Your task to perform on an android device: Go to privacy settings Image 0: 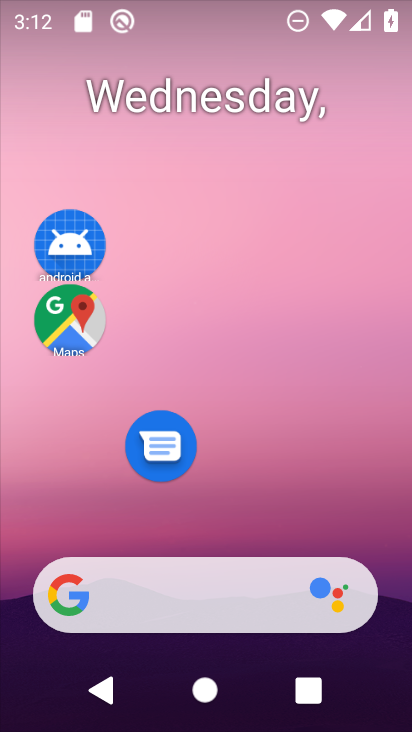
Step 0: drag from (239, 535) to (288, 165)
Your task to perform on an android device: Go to privacy settings Image 1: 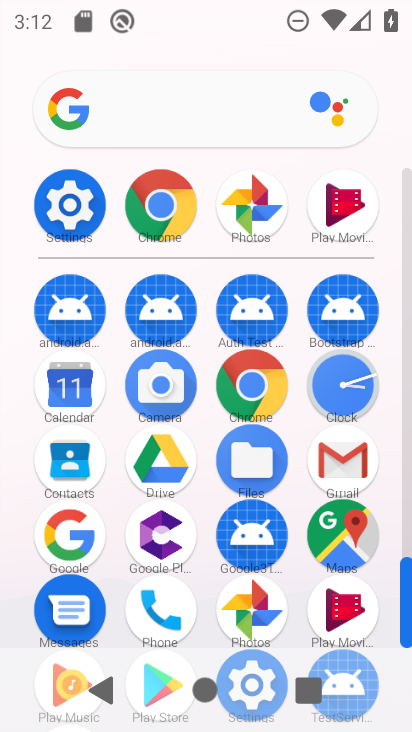
Step 1: click (84, 213)
Your task to perform on an android device: Go to privacy settings Image 2: 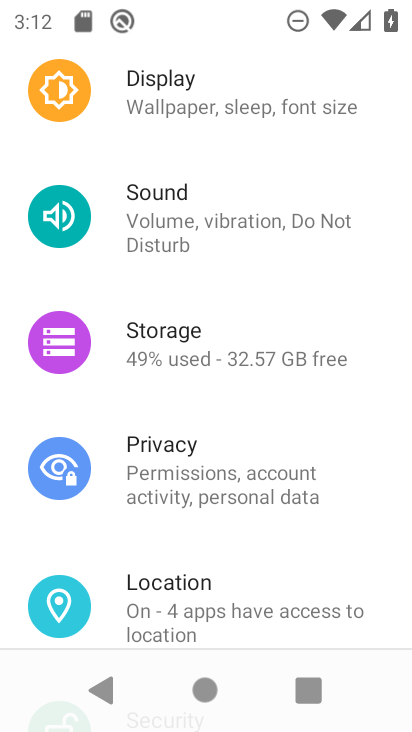
Step 2: click (149, 468)
Your task to perform on an android device: Go to privacy settings Image 3: 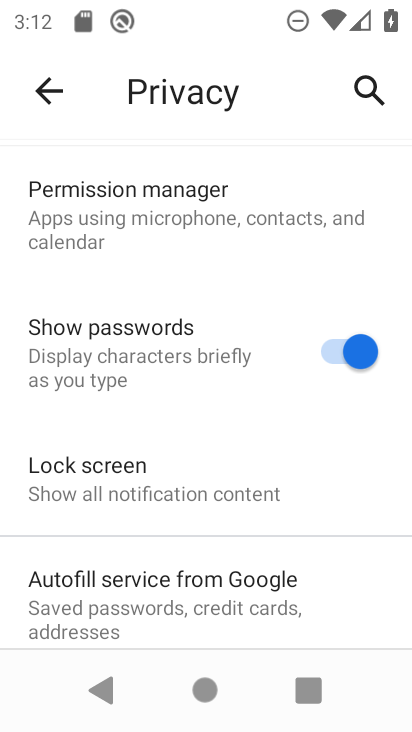
Step 3: task complete